Your task to perform on an android device: Do I have any events this weekend? Image 0: 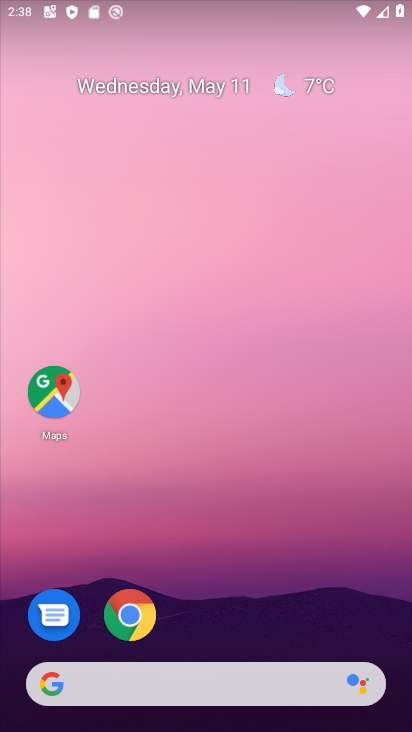
Step 0: drag from (279, 609) to (275, 127)
Your task to perform on an android device: Do I have any events this weekend? Image 1: 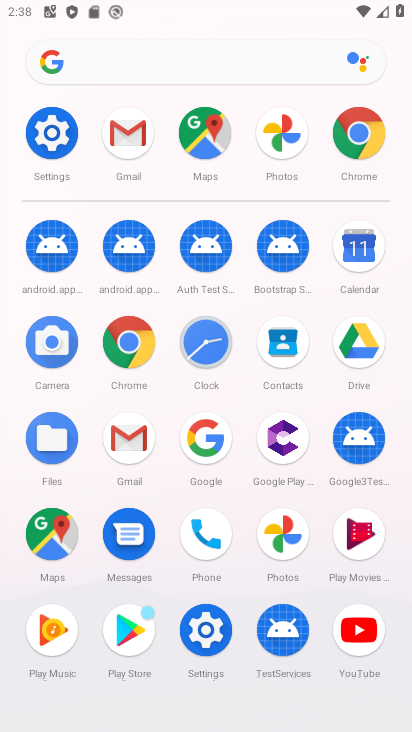
Step 1: click (363, 253)
Your task to perform on an android device: Do I have any events this weekend? Image 2: 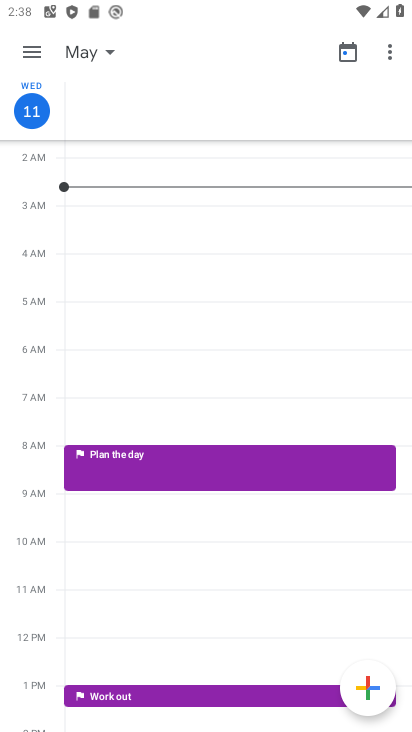
Step 2: click (43, 46)
Your task to perform on an android device: Do I have any events this weekend? Image 3: 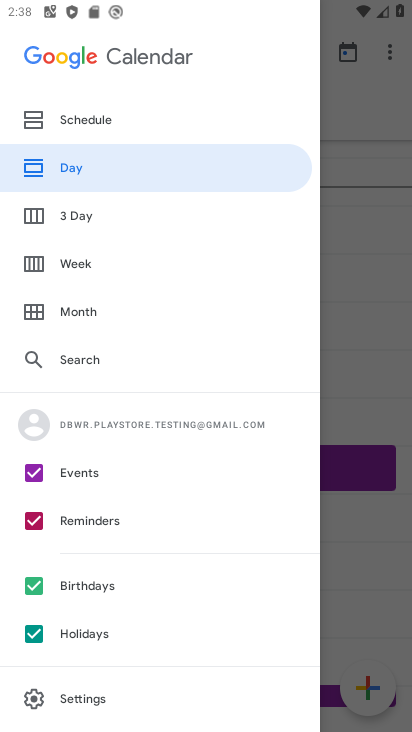
Step 3: click (100, 267)
Your task to perform on an android device: Do I have any events this weekend? Image 4: 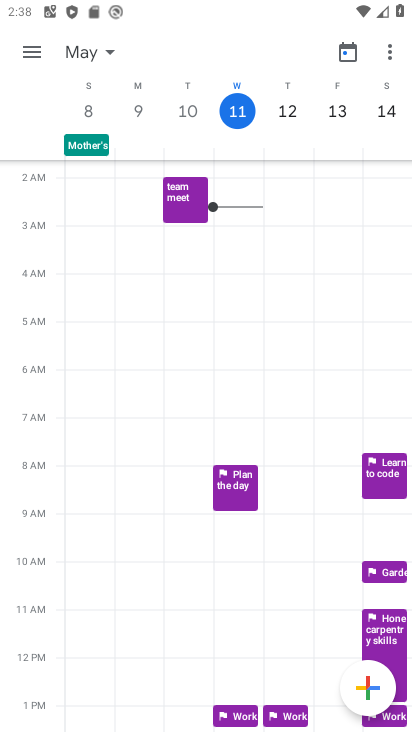
Step 4: task complete